Your task to perform on an android device: toggle notifications settings in the gmail app Image 0: 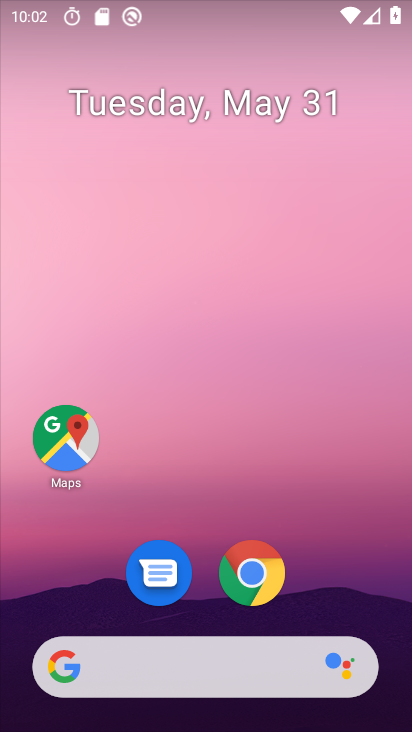
Step 0: drag from (198, 604) to (246, 164)
Your task to perform on an android device: toggle notifications settings in the gmail app Image 1: 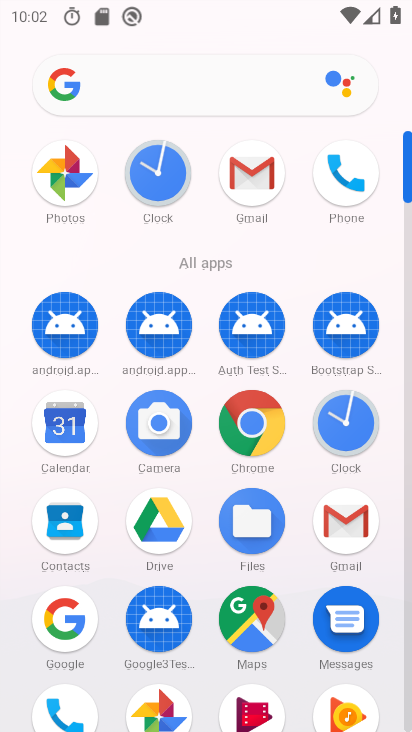
Step 1: click (258, 182)
Your task to perform on an android device: toggle notifications settings in the gmail app Image 2: 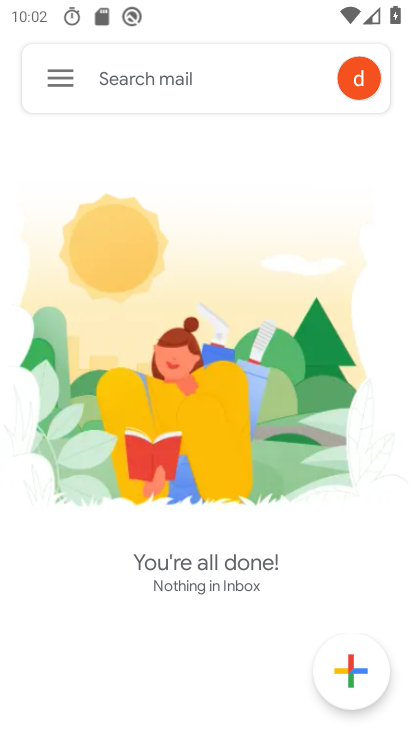
Step 2: click (65, 86)
Your task to perform on an android device: toggle notifications settings in the gmail app Image 3: 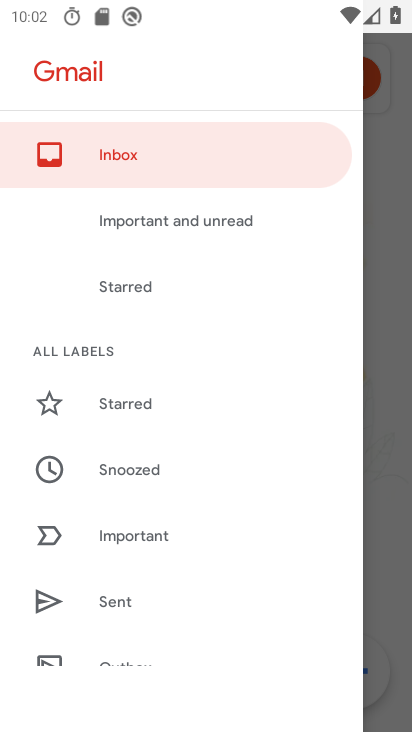
Step 3: drag from (95, 604) to (196, 150)
Your task to perform on an android device: toggle notifications settings in the gmail app Image 4: 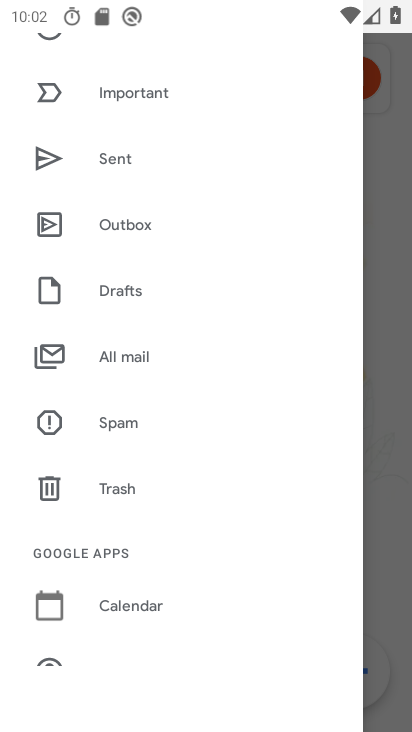
Step 4: drag from (83, 631) to (195, 143)
Your task to perform on an android device: toggle notifications settings in the gmail app Image 5: 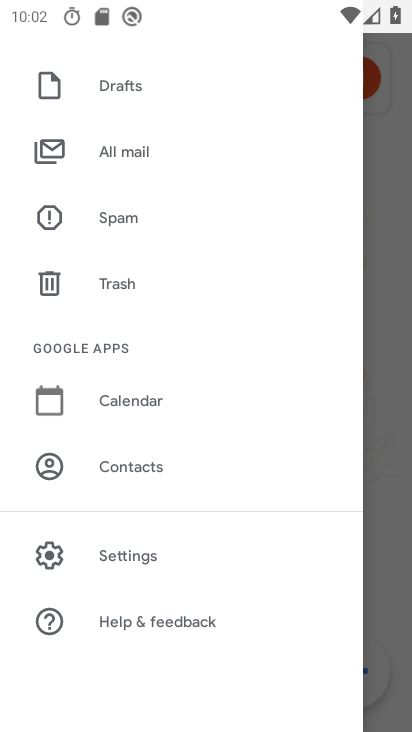
Step 5: click (150, 562)
Your task to perform on an android device: toggle notifications settings in the gmail app Image 6: 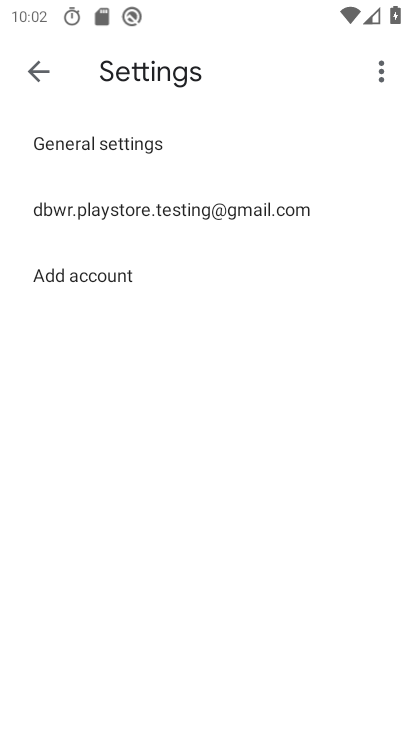
Step 6: click (169, 194)
Your task to perform on an android device: toggle notifications settings in the gmail app Image 7: 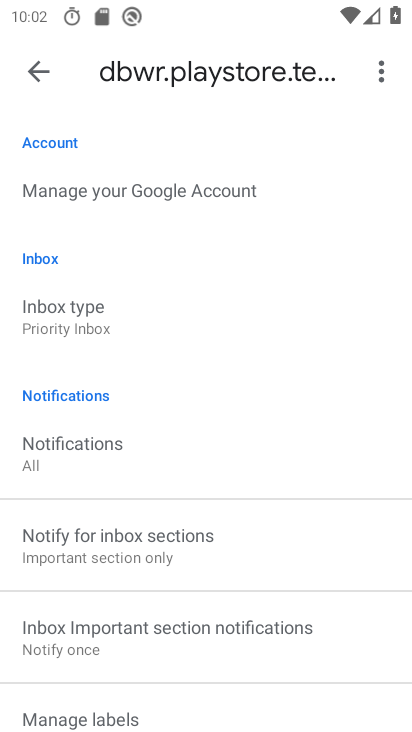
Step 7: click (89, 428)
Your task to perform on an android device: toggle notifications settings in the gmail app Image 8: 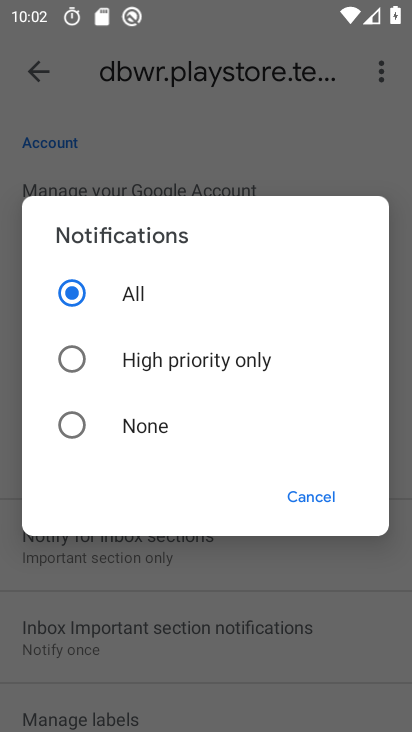
Step 8: click (172, 360)
Your task to perform on an android device: toggle notifications settings in the gmail app Image 9: 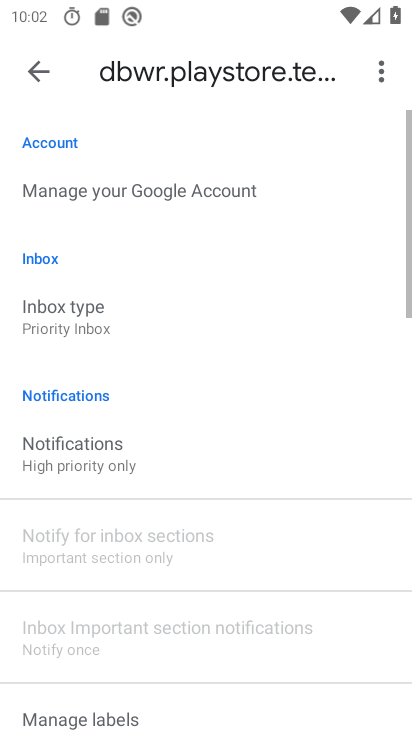
Step 9: task complete